Your task to perform on an android device: turn vacation reply on in the gmail app Image 0: 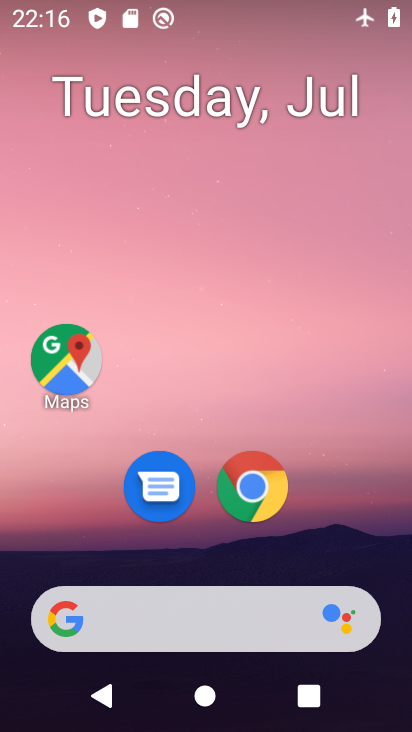
Step 0: press home button
Your task to perform on an android device: turn vacation reply on in the gmail app Image 1: 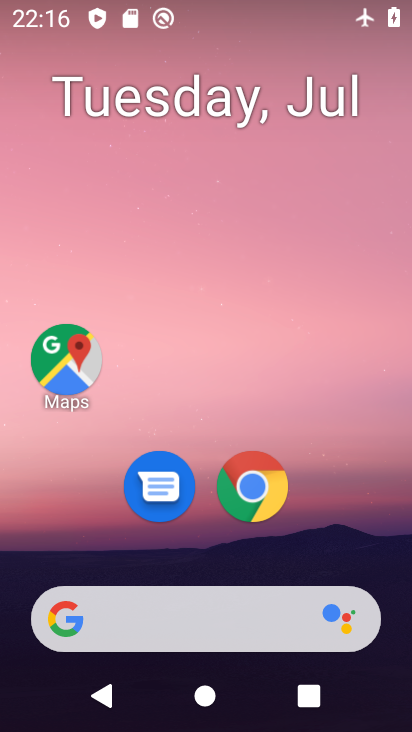
Step 1: drag from (354, 549) to (334, 155)
Your task to perform on an android device: turn vacation reply on in the gmail app Image 2: 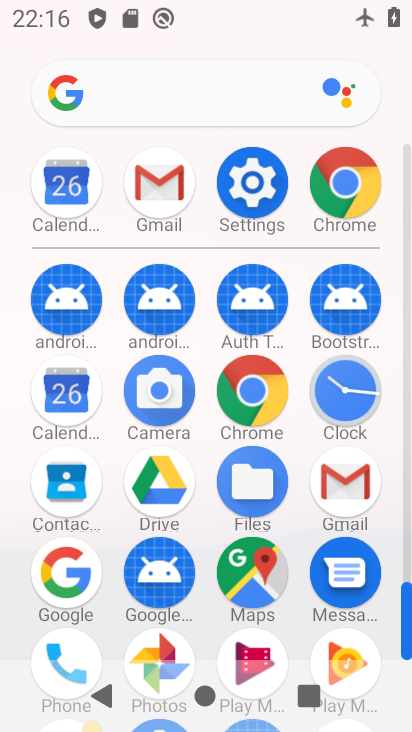
Step 2: click (345, 487)
Your task to perform on an android device: turn vacation reply on in the gmail app Image 3: 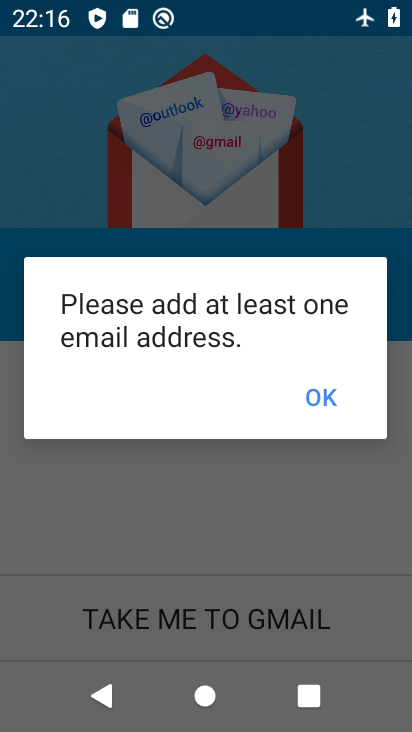
Step 3: task complete